Your task to perform on an android device: turn vacation reply on in the gmail app Image 0: 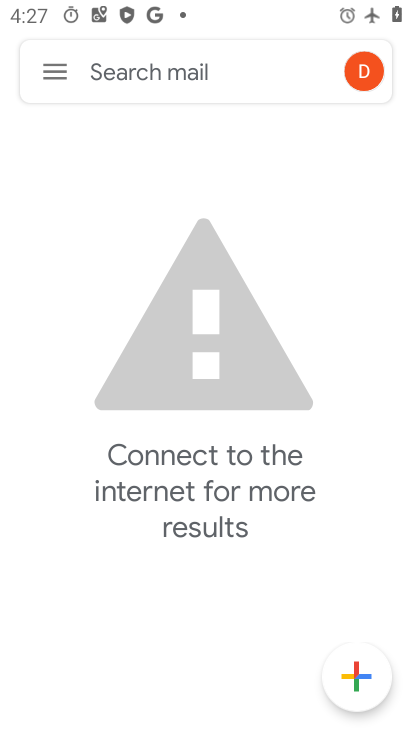
Step 0: press home button
Your task to perform on an android device: turn vacation reply on in the gmail app Image 1: 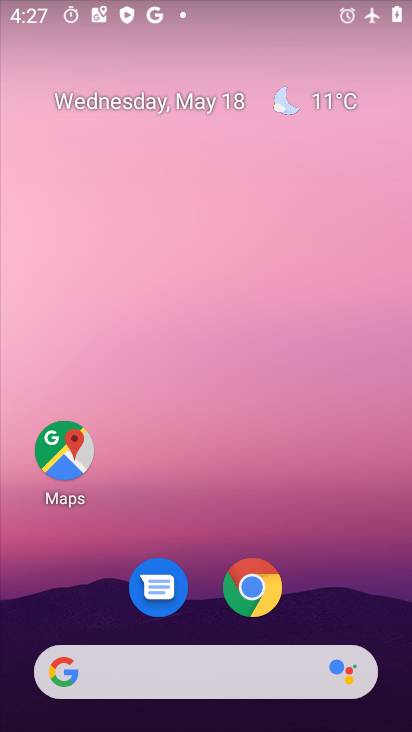
Step 1: drag from (236, 543) to (200, 211)
Your task to perform on an android device: turn vacation reply on in the gmail app Image 2: 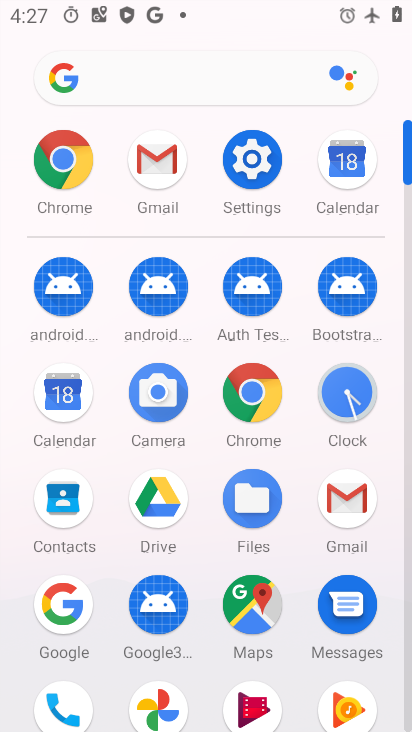
Step 2: click (356, 511)
Your task to perform on an android device: turn vacation reply on in the gmail app Image 3: 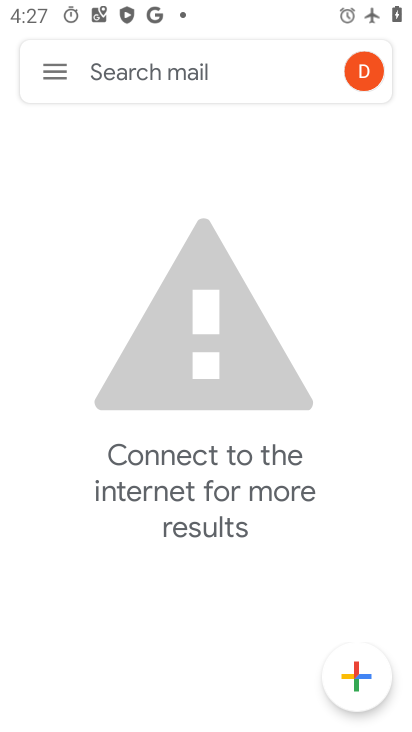
Step 3: click (62, 69)
Your task to perform on an android device: turn vacation reply on in the gmail app Image 4: 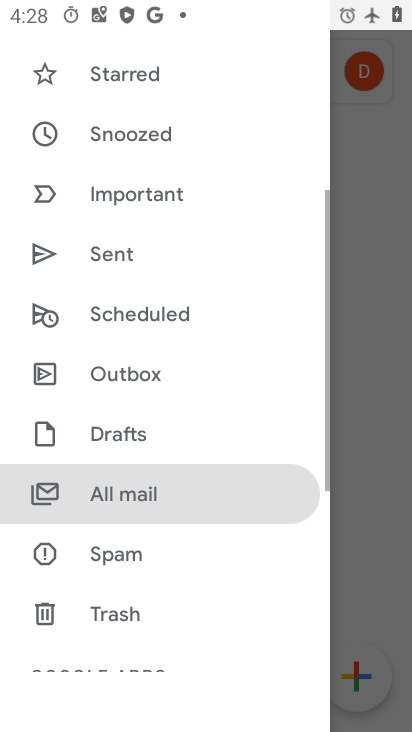
Step 4: drag from (108, 604) to (73, 296)
Your task to perform on an android device: turn vacation reply on in the gmail app Image 5: 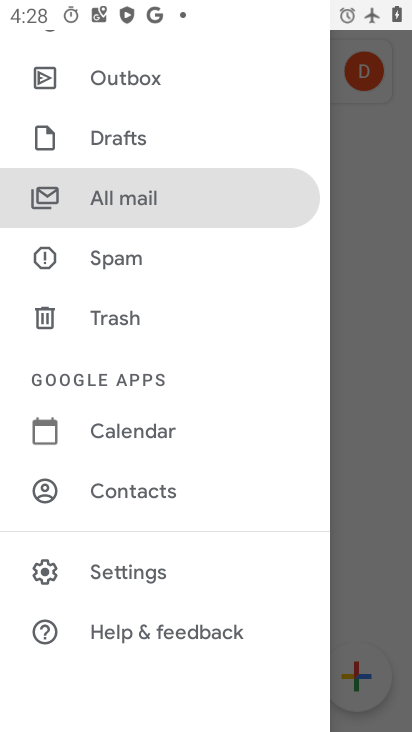
Step 5: click (134, 574)
Your task to perform on an android device: turn vacation reply on in the gmail app Image 6: 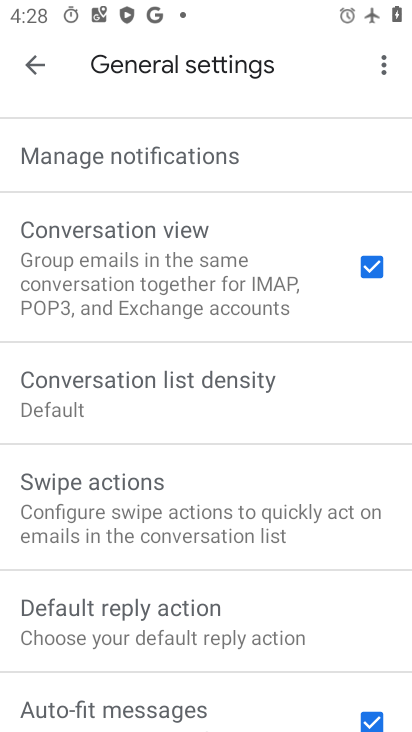
Step 6: click (19, 55)
Your task to perform on an android device: turn vacation reply on in the gmail app Image 7: 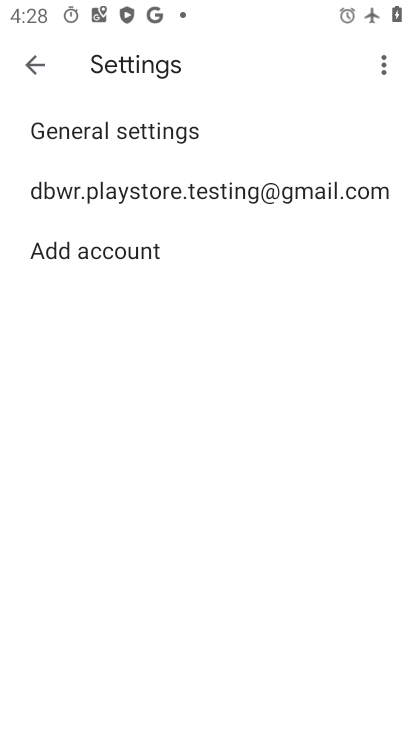
Step 7: click (147, 216)
Your task to perform on an android device: turn vacation reply on in the gmail app Image 8: 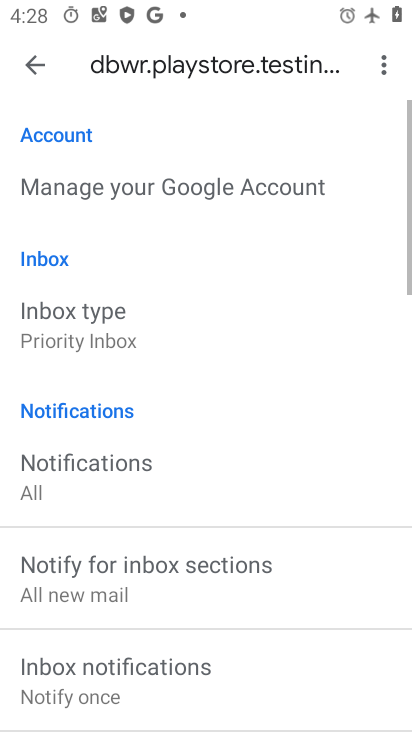
Step 8: drag from (117, 506) to (111, 138)
Your task to perform on an android device: turn vacation reply on in the gmail app Image 9: 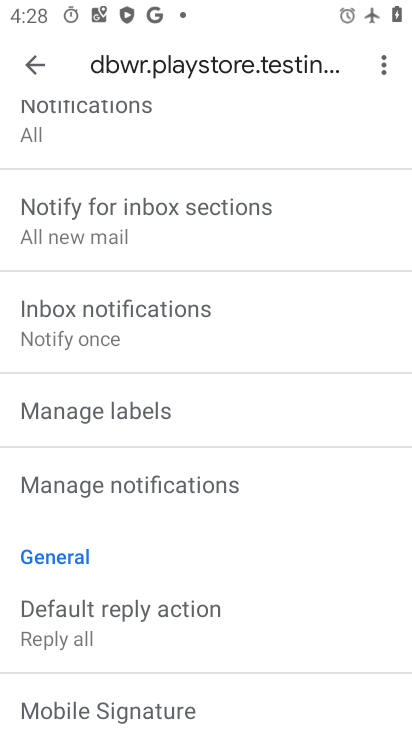
Step 9: drag from (147, 520) to (154, 274)
Your task to perform on an android device: turn vacation reply on in the gmail app Image 10: 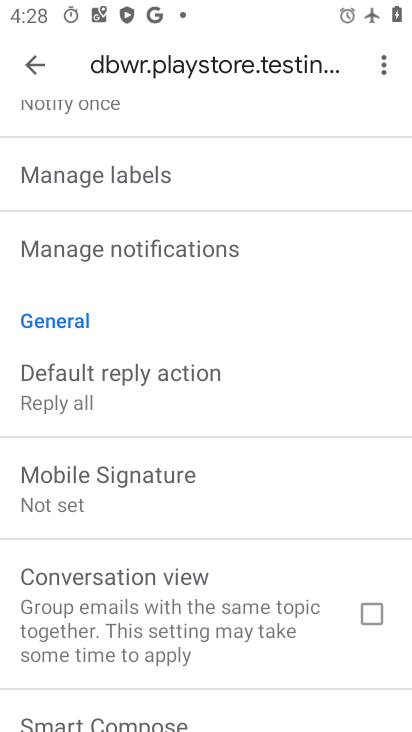
Step 10: drag from (212, 543) to (201, 314)
Your task to perform on an android device: turn vacation reply on in the gmail app Image 11: 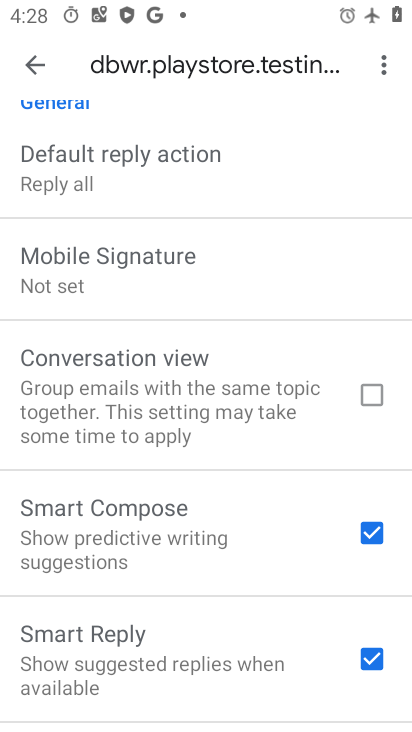
Step 11: drag from (174, 635) to (170, 398)
Your task to perform on an android device: turn vacation reply on in the gmail app Image 12: 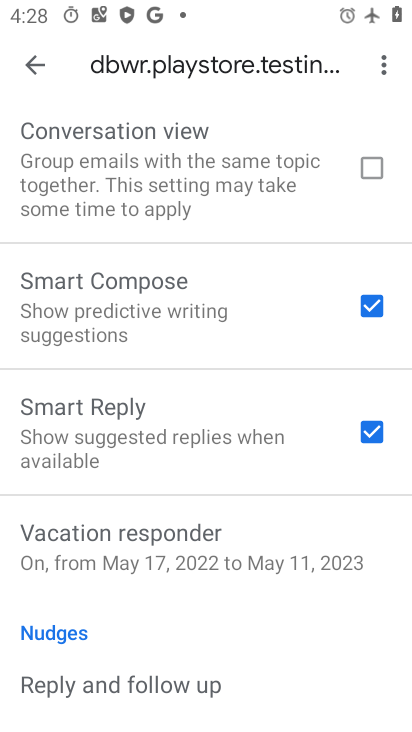
Step 12: click (213, 577)
Your task to perform on an android device: turn vacation reply on in the gmail app Image 13: 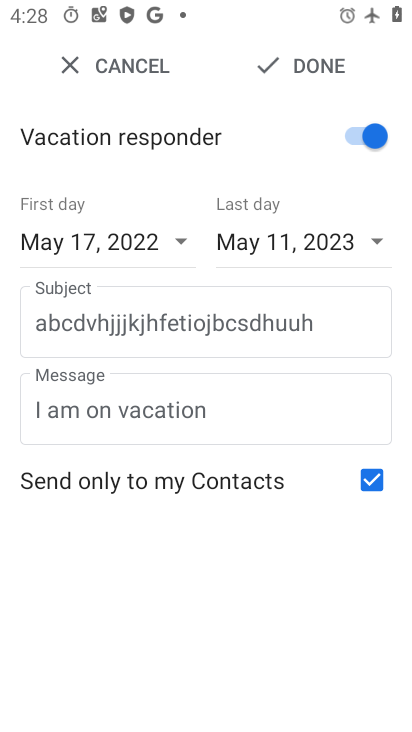
Step 13: task complete